Your task to perform on an android device: Go to CNN.com Image 0: 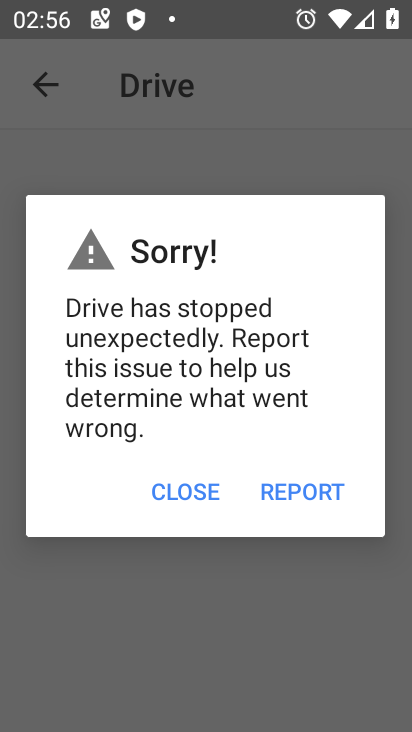
Step 0: press home button
Your task to perform on an android device: Go to CNN.com Image 1: 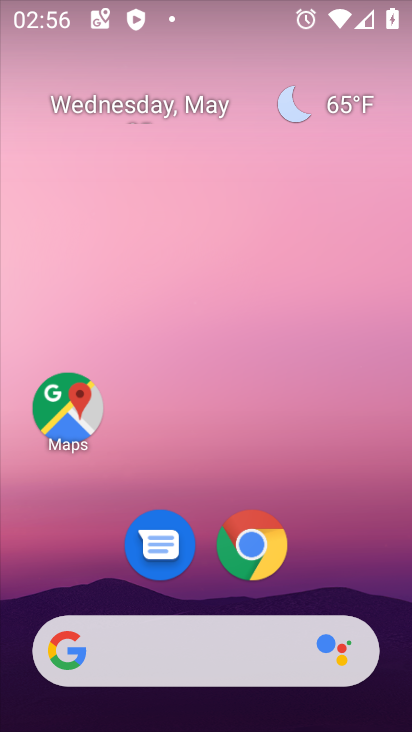
Step 1: click (257, 542)
Your task to perform on an android device: Go to CNN.com Image 2: 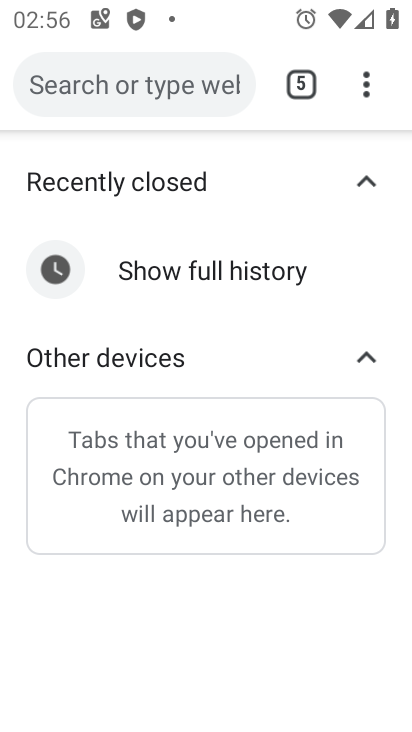
Step 2: click (218, 79)
Your task to perform on an android device: Go to CNN.com Image 3: 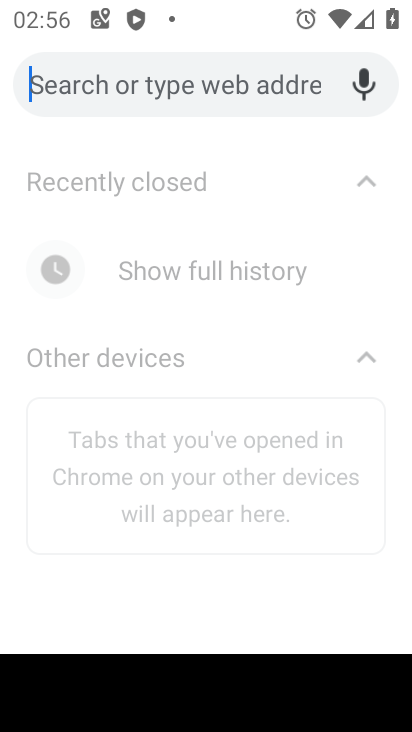
Step 3: type "CNN.com"
Your task to perform on an android device: Go to CNN.com Image 4: 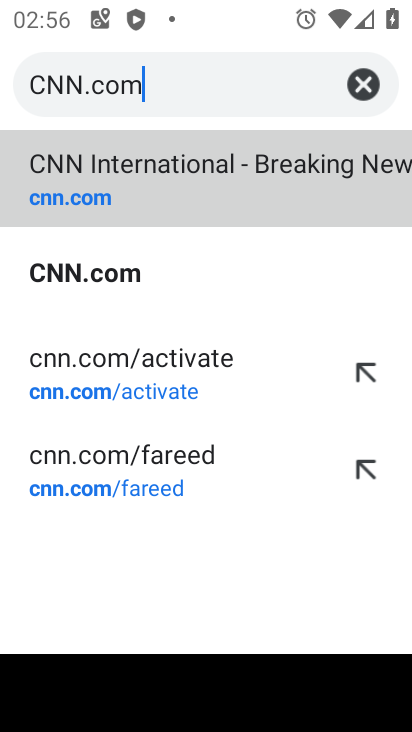
Step 4: click (163, 183)
Your task to perform on an android device: Go to CNN.com Image 5: 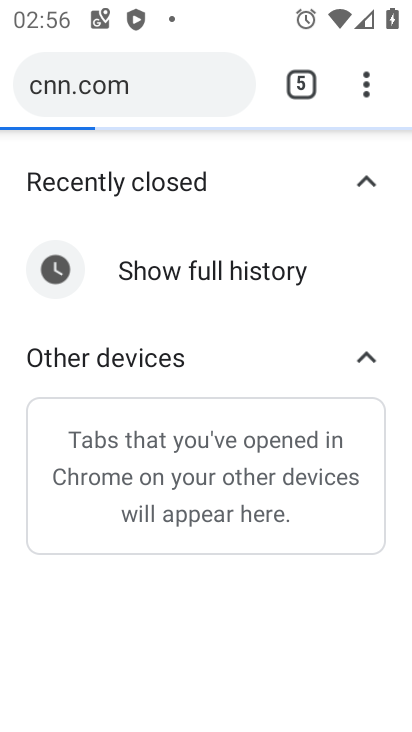
Step 5: task complete